Your task to perform on an android device: toggle improve location accuracy Image 0: 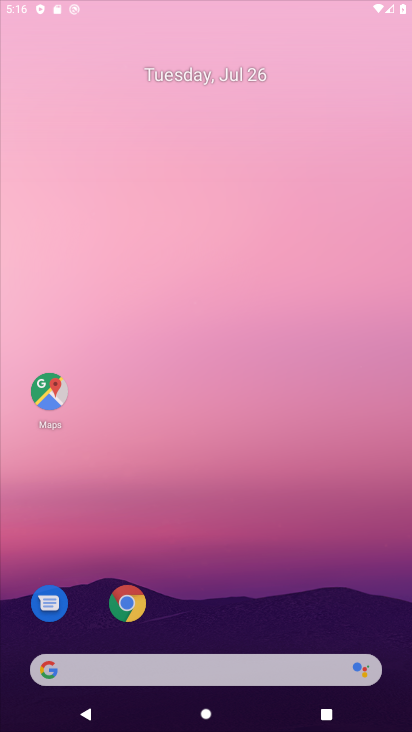
Step 0: press home button
Your task to perform on an android device: toggle improve location accuracy Image 1: 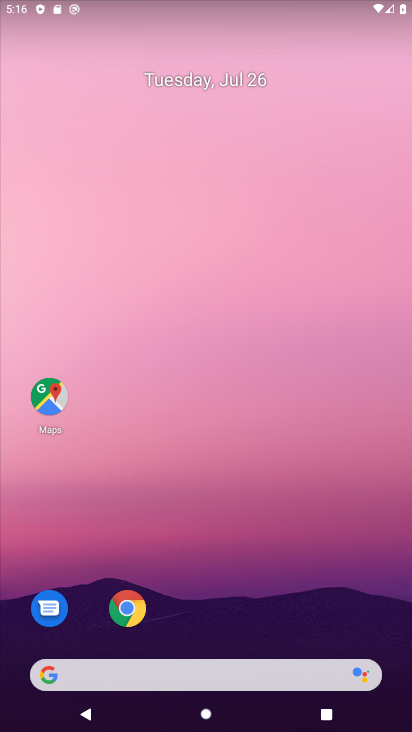
Step 1: drag from (268, 624) to (362, 185)
Your task to perform on an android device: toggle improve location accuracy Image 2: 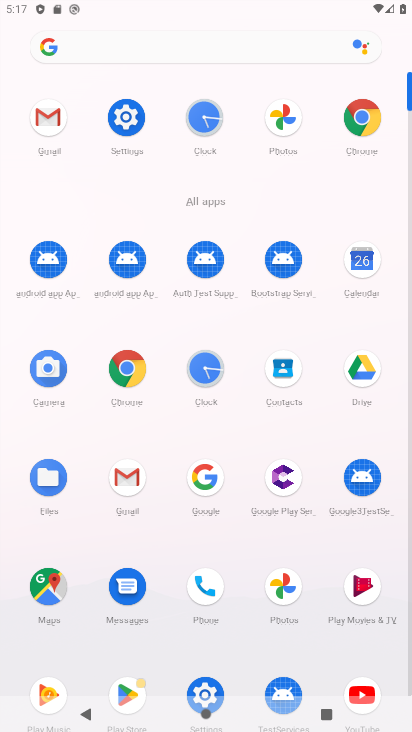
Step 2: click (135, 112)
Your task to perform on an android device: toggle improve location accuracy Image 3: 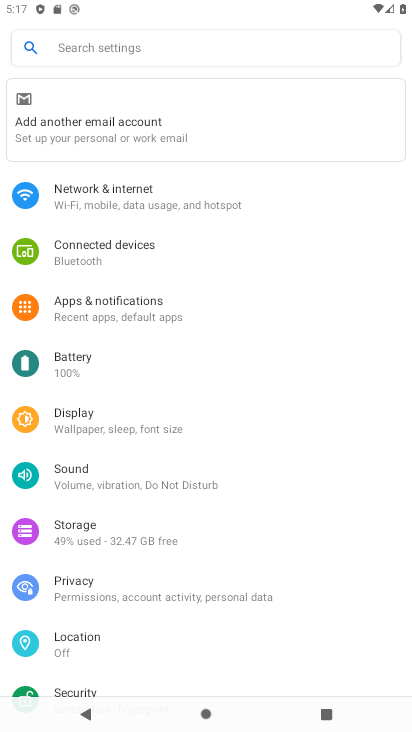
Step 3: click (90, 642)
Your task to perform on an android device: toggle improve location accuracy Image 4: 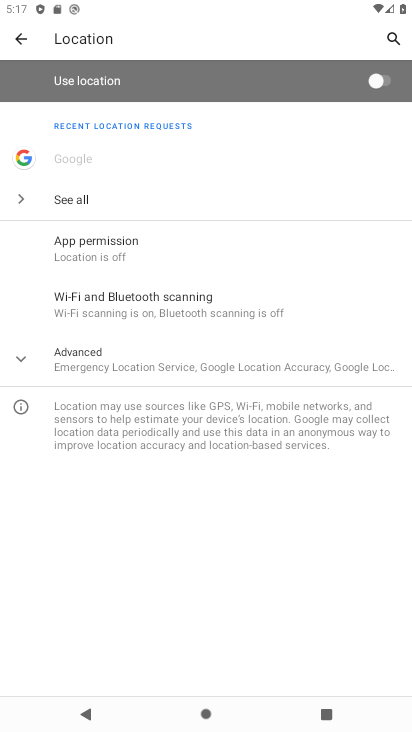
Step 4: click (92, 378)
Your task to perform on an android device: toggle improve location accuracy Image 5: 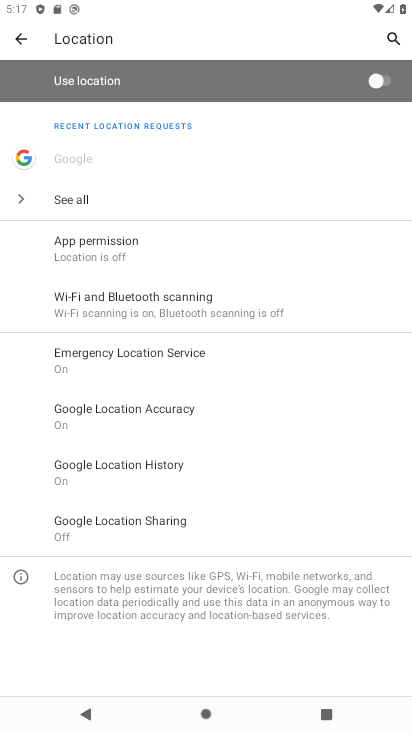
Step 5: click (129, 418)
Your task to perform on an android device: toggle improve location accuracy Image 6: 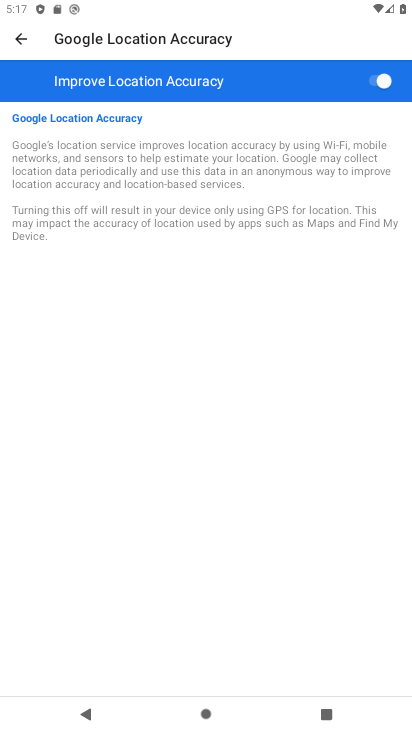
Step 6: click (389, 78)
Your task to perform on an android device: toggle improve location accuracy Image 7: 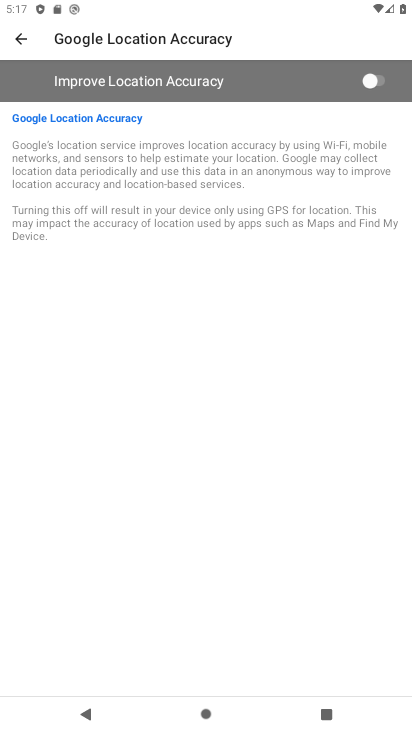
Step 7: task complete